Your task to perform on an android device: turn on translation in the chrome app Image 0: 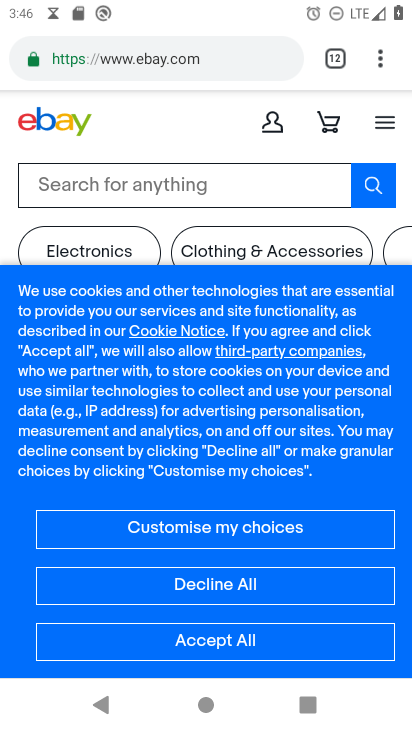
Step 0: press home button
Your task to perform on an android device: turn on translation in the chrome app Image 1: 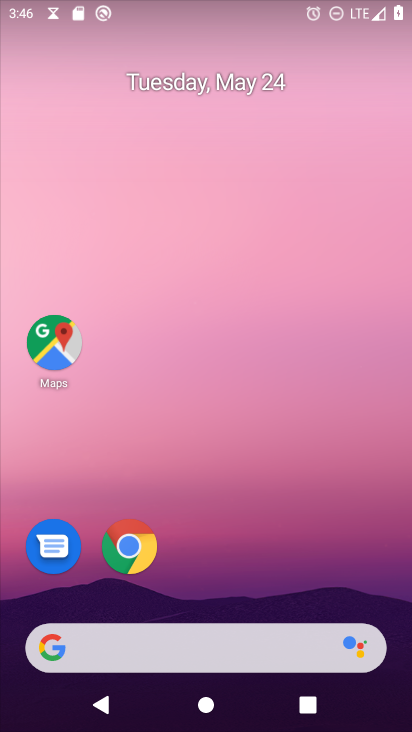
Step 1: drag from (243, 647) to (260, 26)
Your task to perform on an android device: turn on translation in the chrome app Image 2: 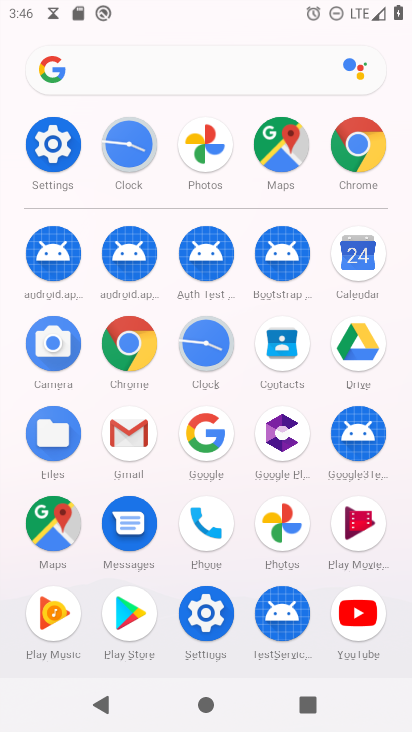
Step 2: click (116, 342)
Your task to perform on an android device: turn on translation in the chrome app Image 3: 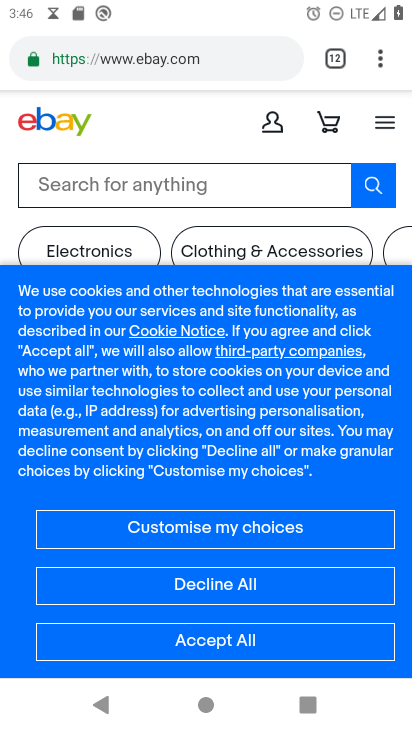
Step 3: drag from (382, 57) to (186, 556)
Your task to perform on an android device: turn on translation in the chrome app Image 4: 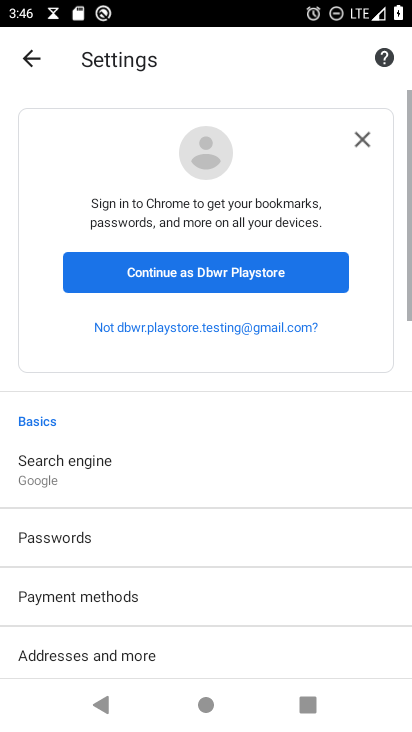
Step 4: drag from (175, 621) to (245, 82)
Your task to perform on an android device: turn on translation in the chrome app Image 5: 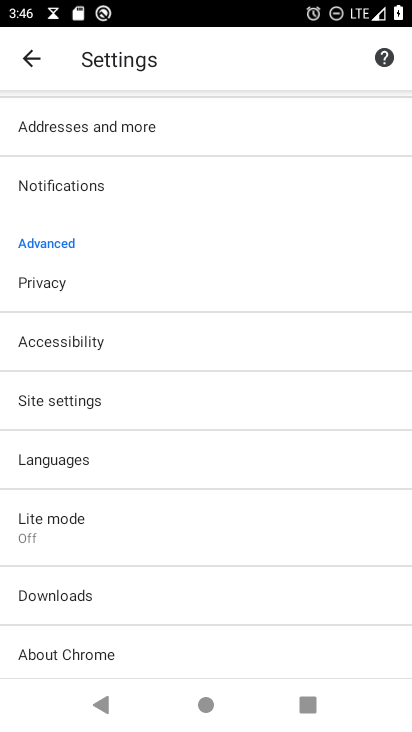
Step 5: click (111, 472)
Your task to perform on an android device: turn on translation in the chrome app Image 6: 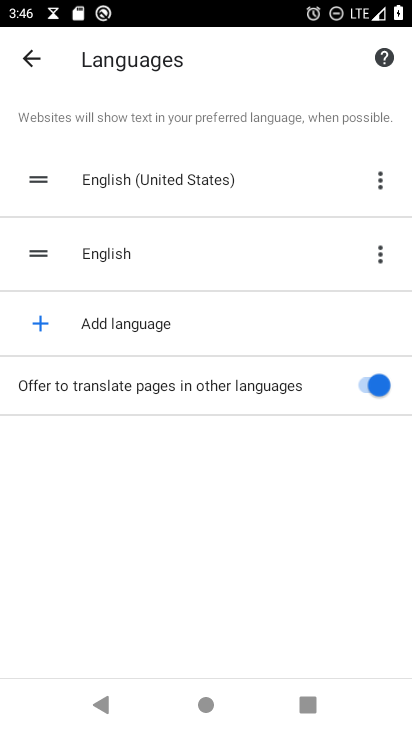
Step 6: task complete